Your task to perform on an android device: Open Maps and search for coffee Image 0: 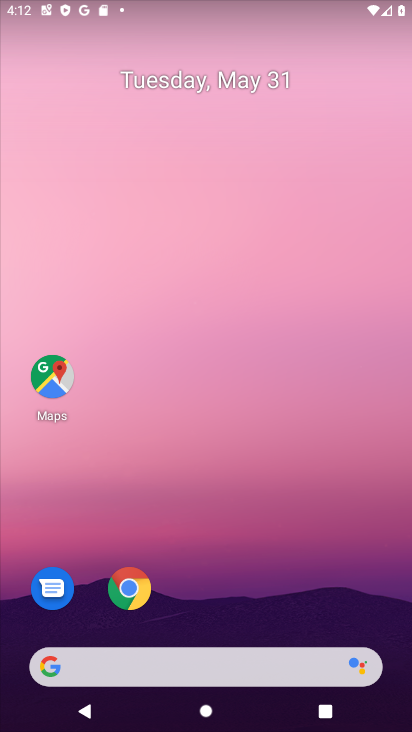
Step 0: click (54, 377)
Your task to perform on an android device: Open Maps and search for coffee Image 1: 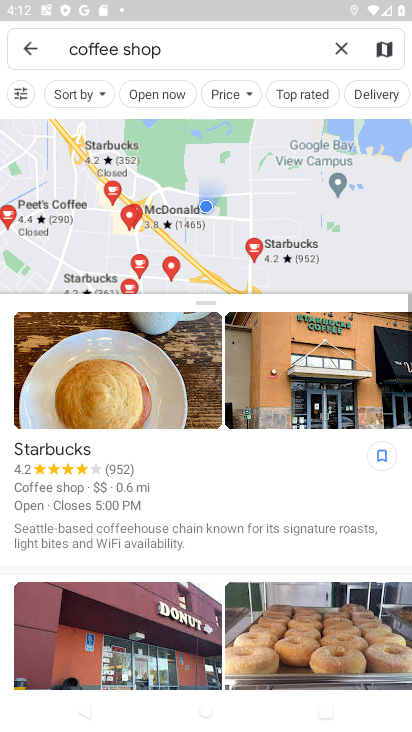
Step 1: task complete